Your task to perform on an android device: What is the news today? Image 0: 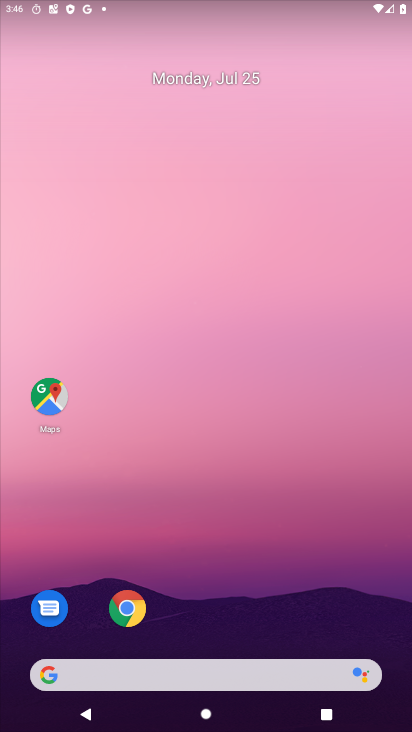
Step 0: press home button
Your task to perform on an android device: What is the news today? Image 1: 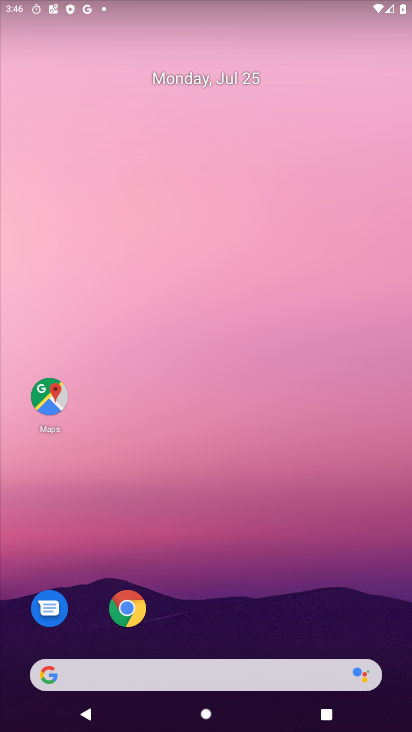
Step 1: task complete